Your task to perform on an android device: Open Amazon Image 0: 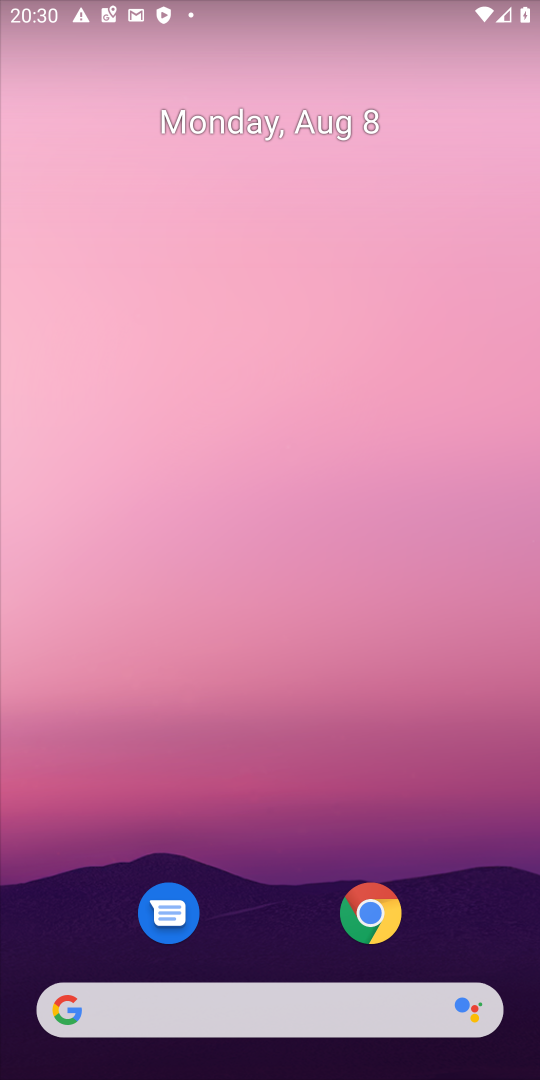
Step 0: drag from (267, 828) to (251, 67)
Your task to perform on an android device: Open Amazon Image 1: 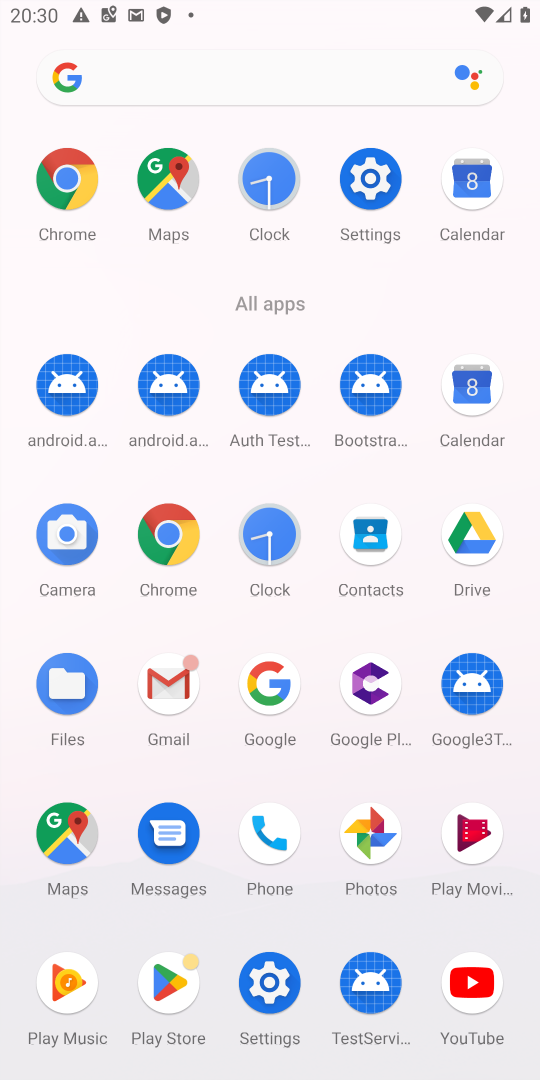
Step 1: click (55, 175)
Your task to perform on an android device: Open Amazon Image 2: 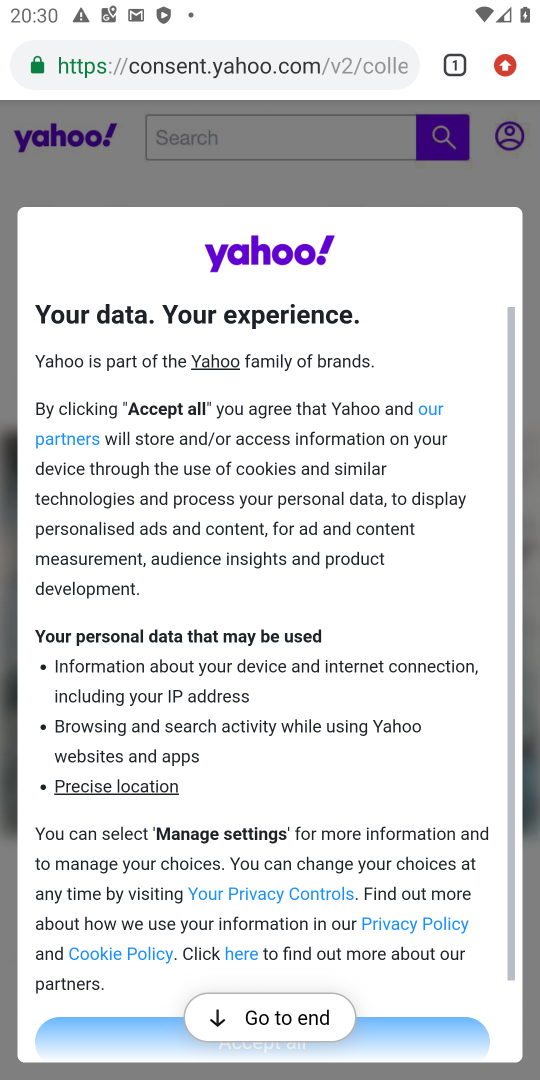
Step 2: click (248, 61)
Your task to perform on an android device: Open Amazon Image 3: 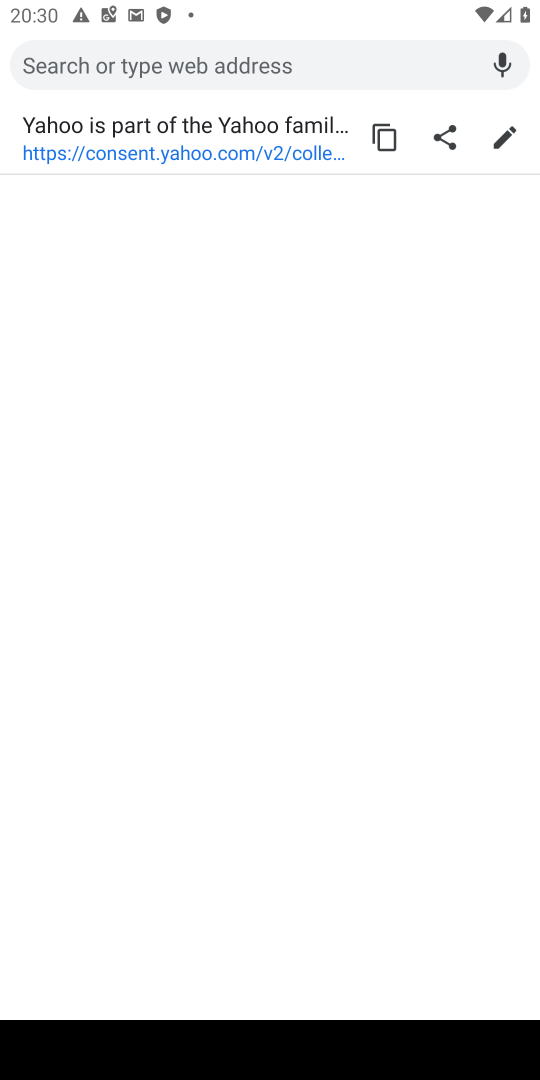
Step 3: type "Amazon"
Your task to perform on an android device: Open Amazon Image 4: 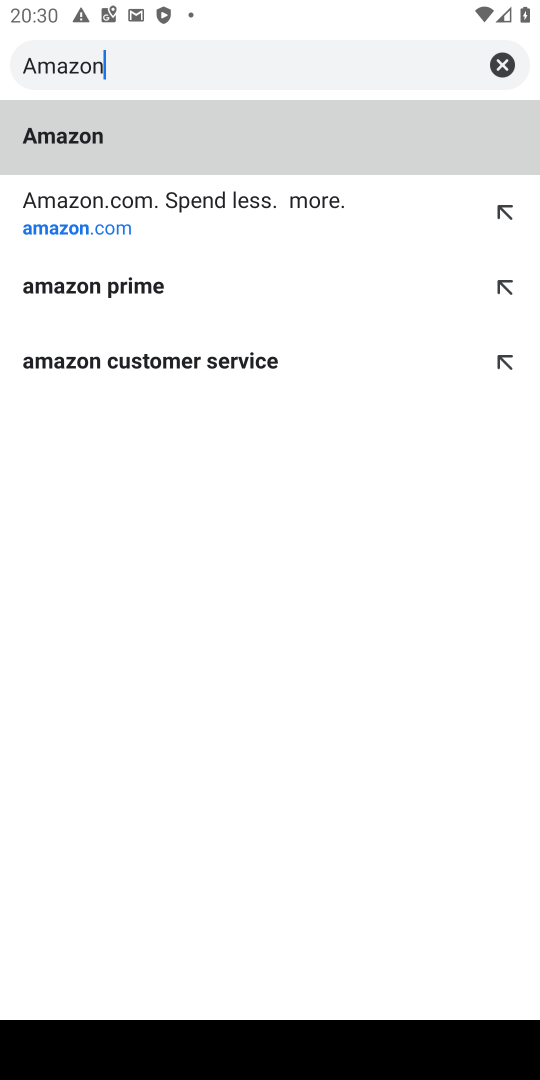
Step 4: type ""
Your task to perform on an android device: Open Amazon Image 5: 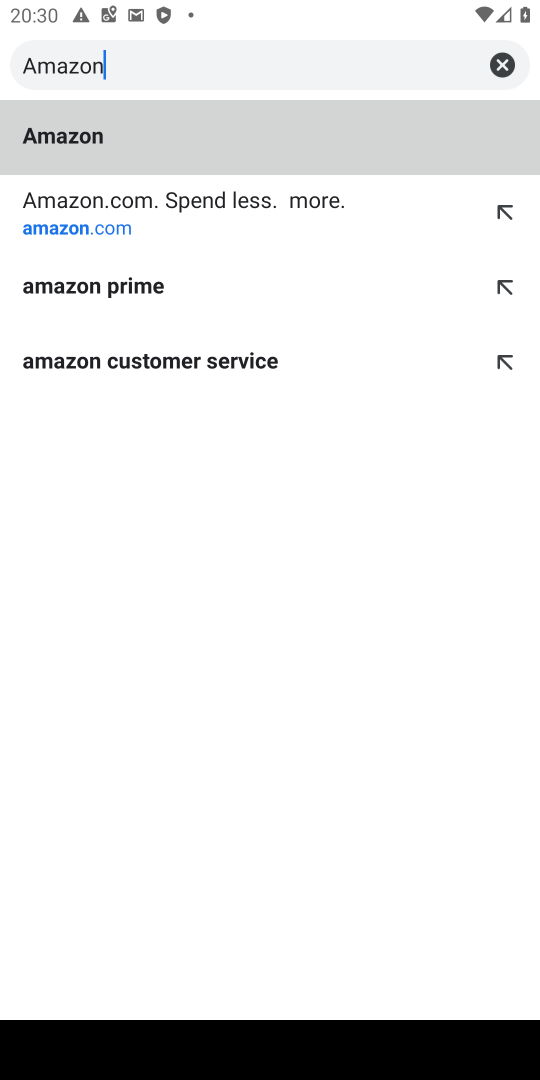
Step 5: click (147, 135)
Your task to perform on an android device: Open Amazon Image 6: 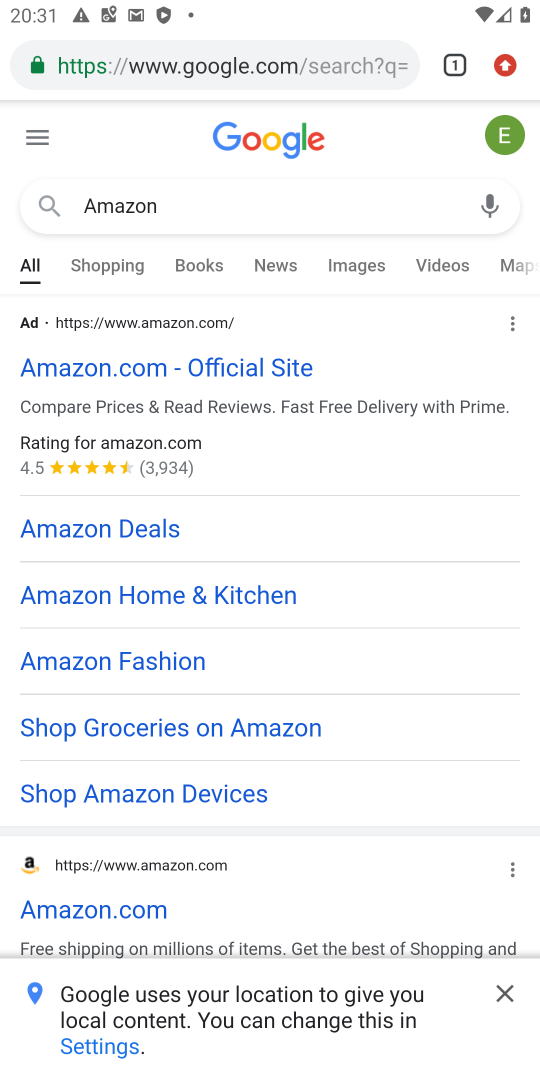
Step 6: click (179, 376)
Your task to perform on an android device: Open Amazon Image 7: 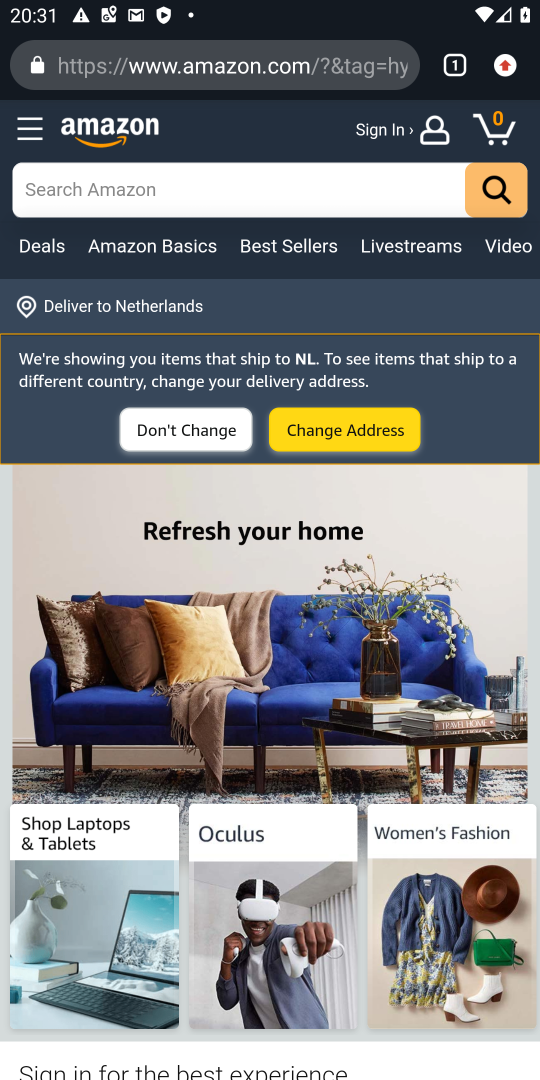
Step 7: task complete